Your task to perform on an android device: Go to Reddit.com Image 0: 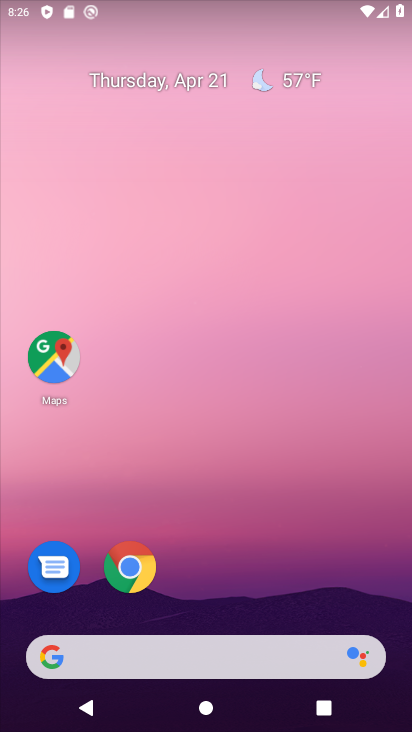
Step 0: click (146, 576)
Your task to perform on an android device: Go to Reddit.com Image 1: 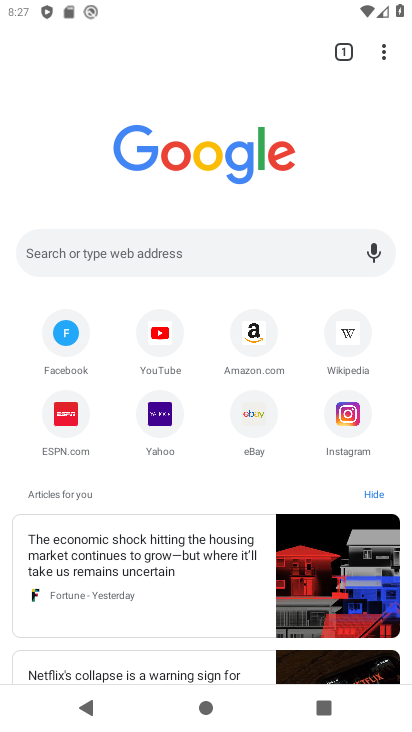
Step 1: click (295, 263)
Your task to perform on an android device: Go to Reddit.com Image 2: 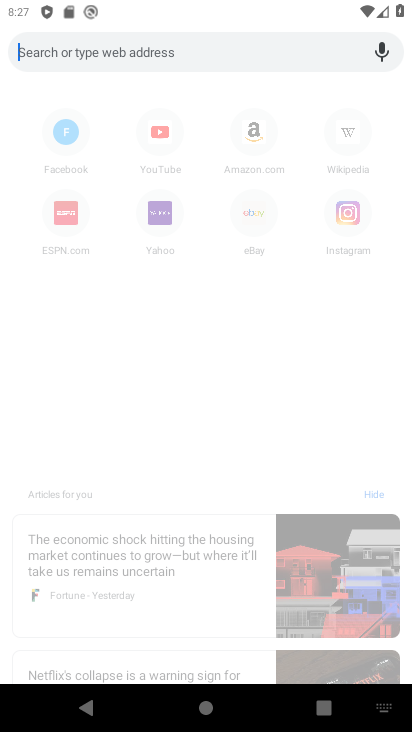
Step 2: type "reddit.com"
Your task to perform on an android device: Go to Reddit.com Image 3: 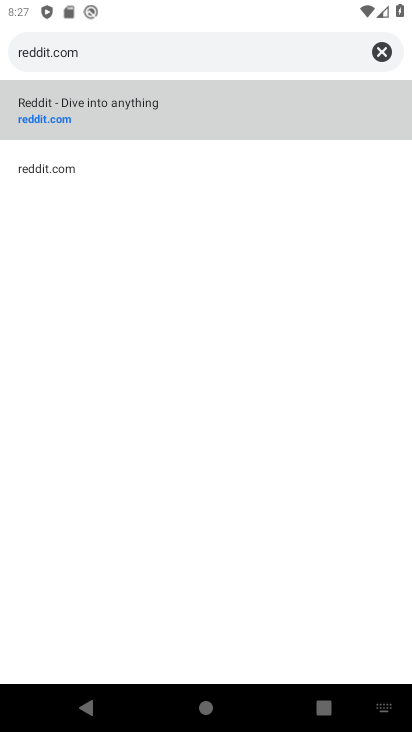
Step 3: click (146, 105)
Your task to perform on an android device: Go to Reddit.com Image 4: 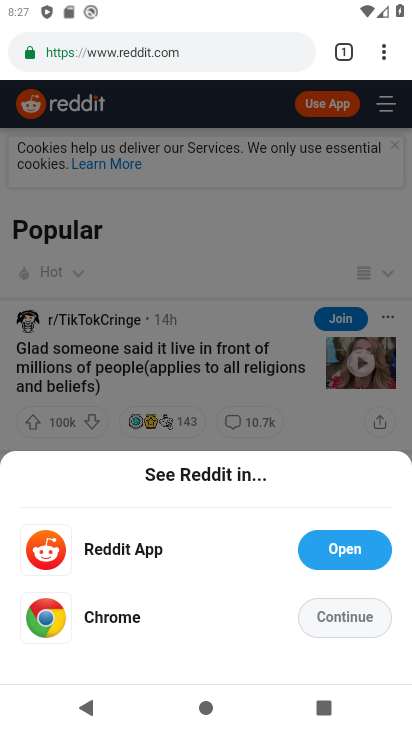
Step 4: task complete